Your task to perform on an android device: toggle data saver in the chrome app Image 0: 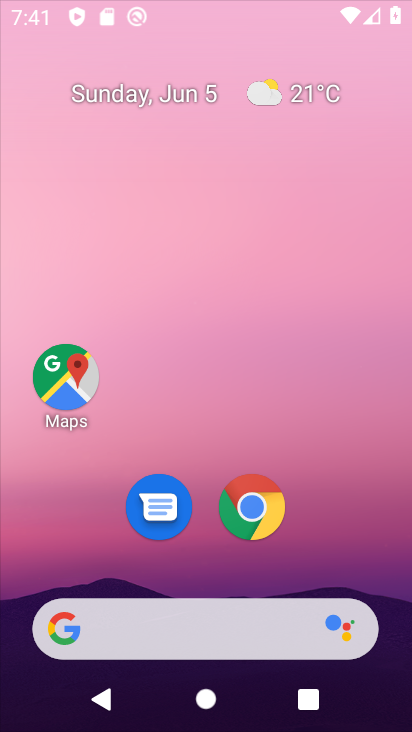
Step 0: click (299, 16)
Your task to perform on an android device: toggle data saver in the chrome app Image 1: 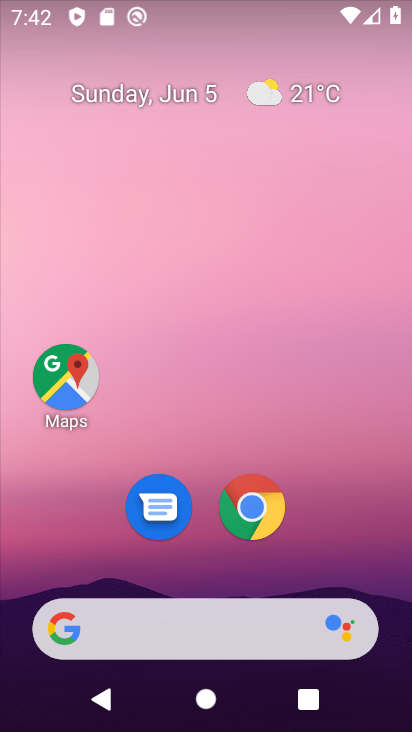
Step 1: drag from (390, 569) to (223, 10)
Your task to perform on an android device: toggle data saver in the chrome app Image 2: 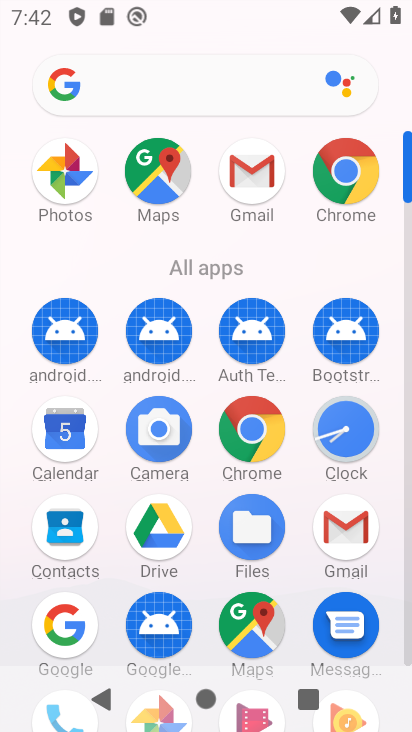
Step 2: drag from (18, 600) to (6, 238)
Your task to perform on an android device: toggle data saver in the chrome app Image 3: 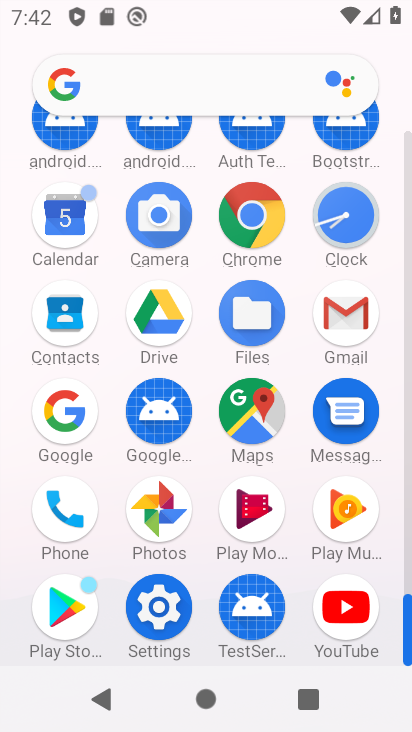
Step 3: click (251, 213)
Your task to perform on an android device: toggle data saver in the chrome app Image 4: 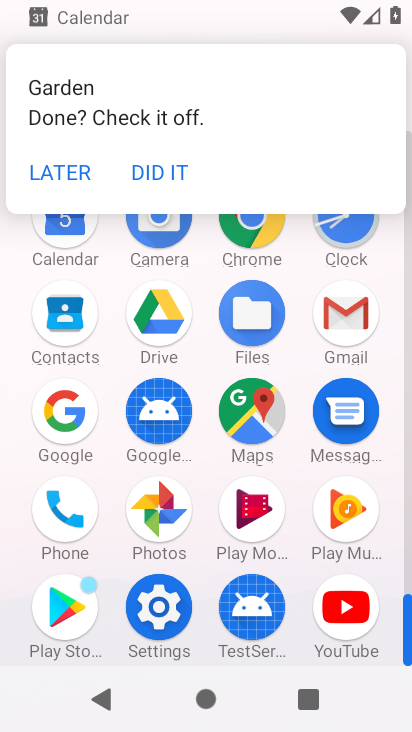
Step 4: click (75, 171)
Your task to perform on an android device: toggle data saver in the chrome app Image 5: 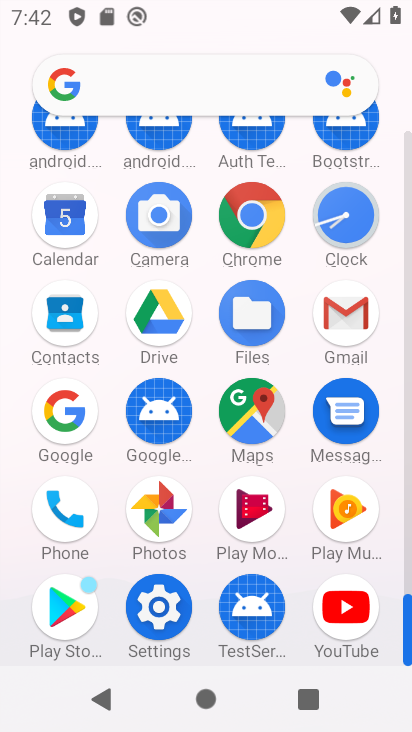
Step 5: click (253, 211)
Your task to perform on an android device: toggle data saver in the chrome app Image 6: 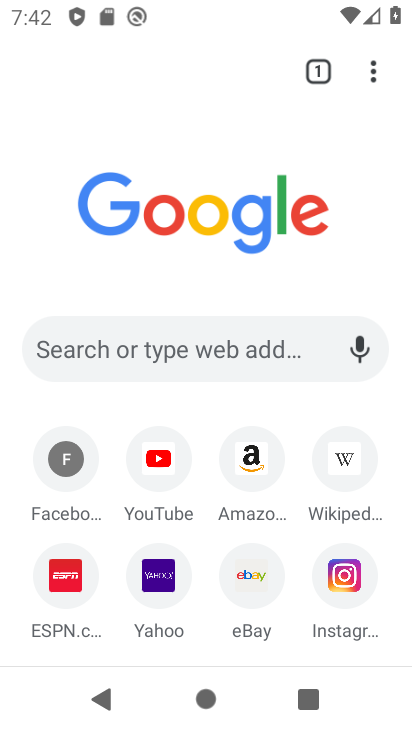
Step 6: drag from (374, 70) to (155, 498)
Your task to perform on an android device: toggle data saver in the chrome app Image 7: 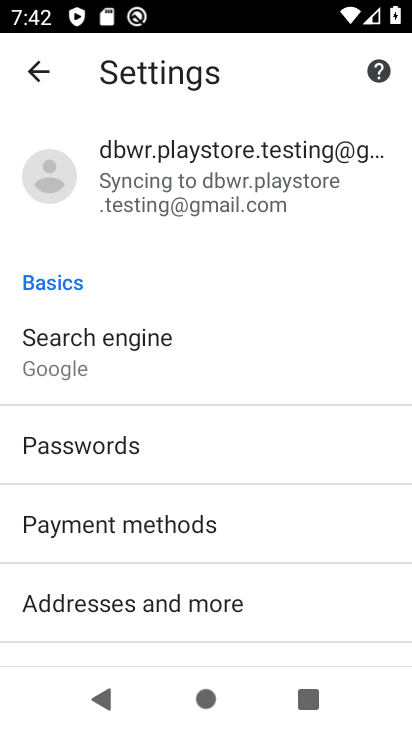
Step 7: drag from (245, 567) to (242, 196)
Your task to perform on an android device: toggle data saver in the chrome app Image 8: 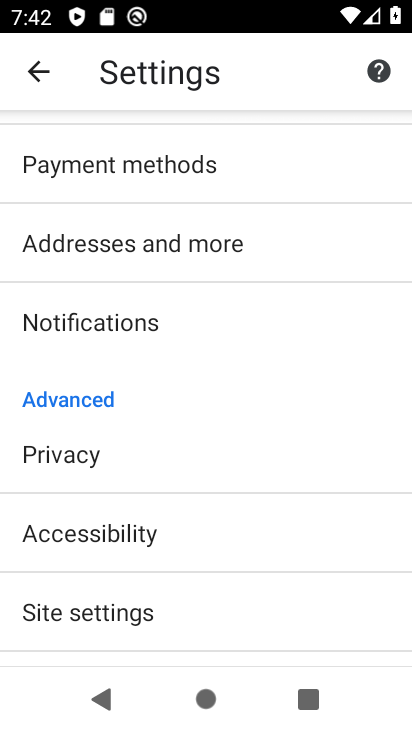
Step 8: drag from (201, 567) to (256, 152)
Your task to perform on an android device: toggle data saver in the chrome app Image 9: 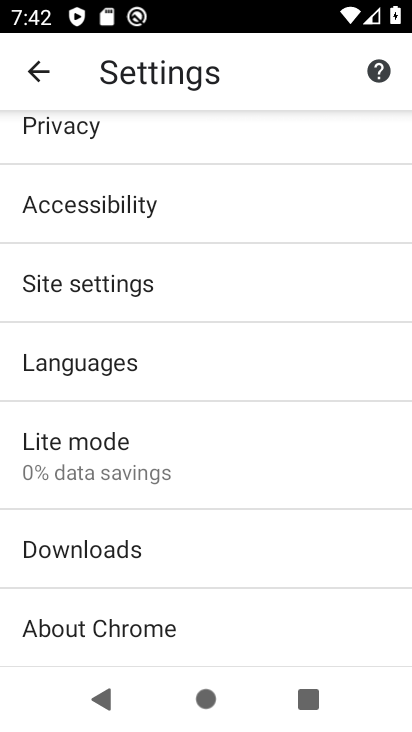
Step 9: click (202, 453)
Your task to perform on an android device: toggle data saver in the chrome app Image 10: 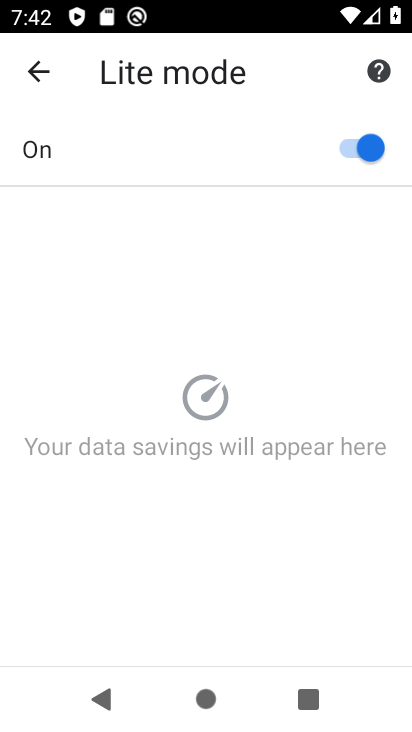
Step 10: click (345, 151)
Your task to perform on an android device: toggle data saver in the chrome app Image 11: 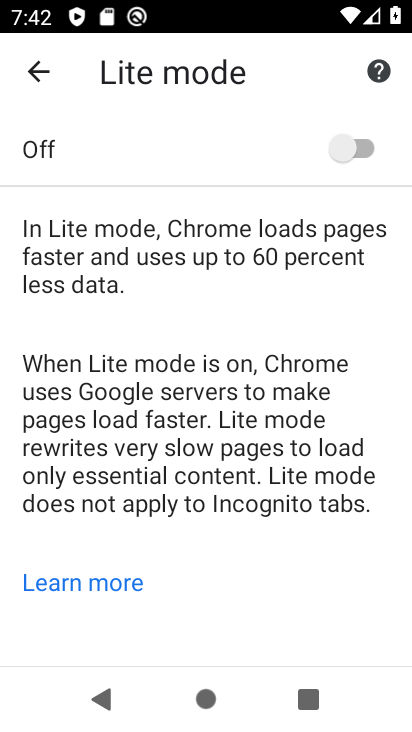
Step 11: task complete